Your task to perform on an android device: toggle improve location accuracy Image 0: 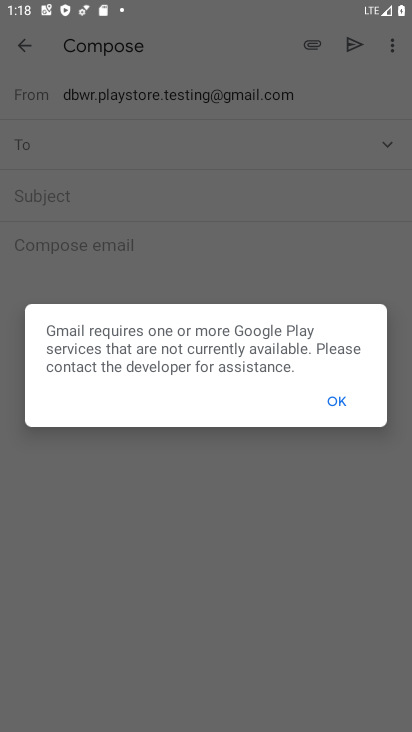
Step 0: click (344, 404)
Your task to perform on an android device: toggle improve location accuracy Image 1: 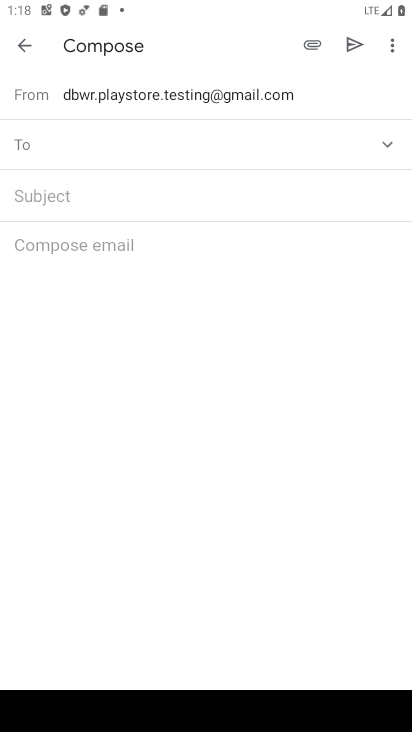
Step 1: press back button
Your task to perform on an android device: toggle improve location accuracy Image 2: 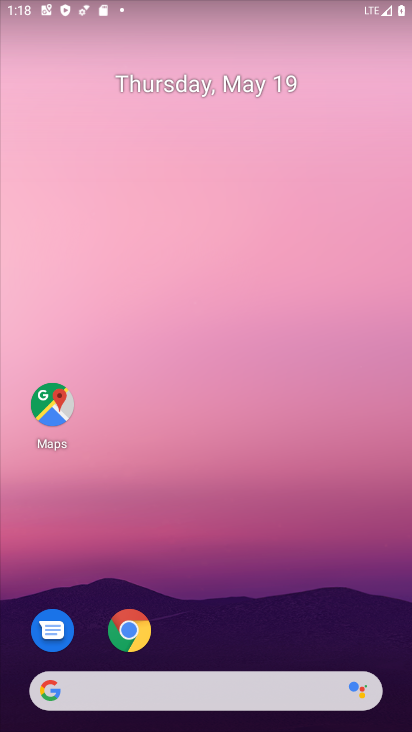
Step 2: drag from (238, 645) to (225, 22)
Your task to perform on an android device: toggle improve location accuracy Image 3: 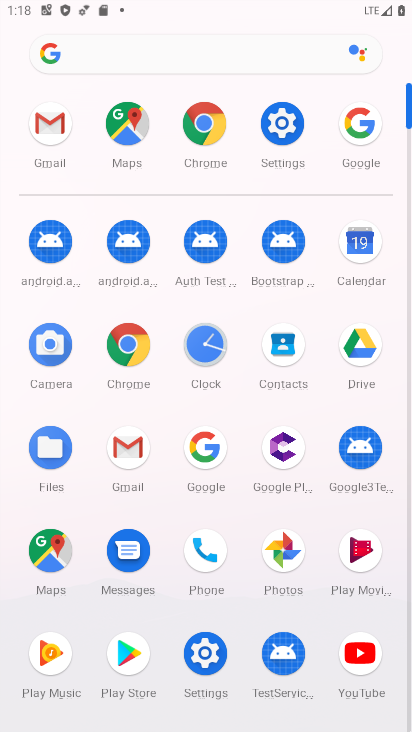
Step 3: click (282, 128)
Your task to perform on an android device: toggle improve location accuracy Image 4: 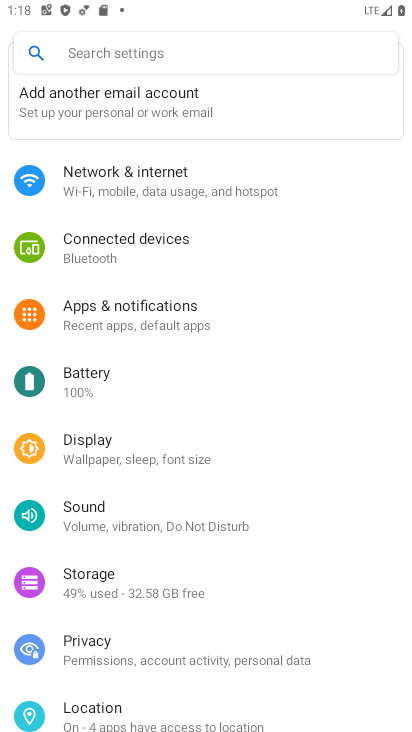
Step 4: click (83, 704)
Your task to perform on an android device: toggle improve location accuracy Image 5: 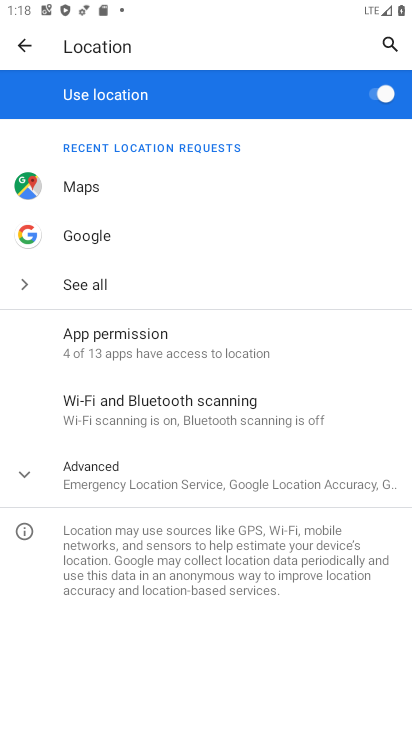
Step 5: click (183, 476)
Your task to perform on an android device: toggle improve location accuracy Image 6: 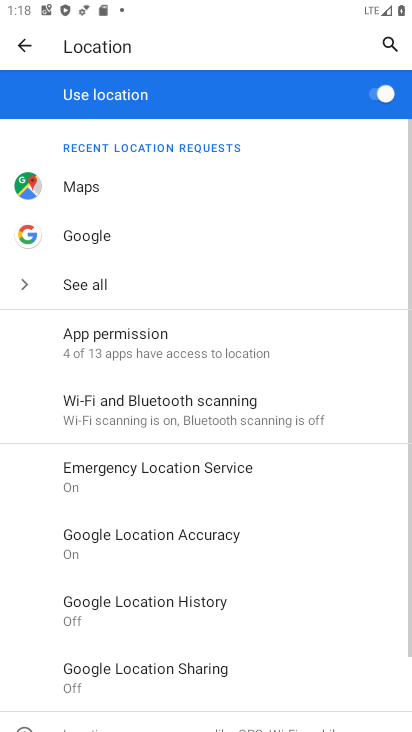
Step 6: click (212, 531)
Your task to perform on an android device: toggle improve location accuracy Image 7: 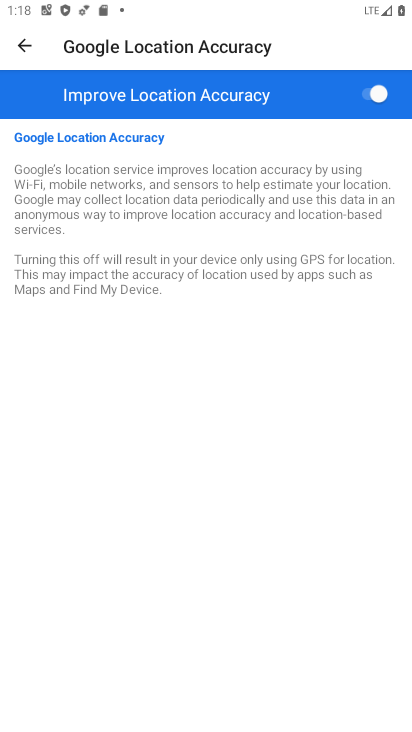
Step 7: click (364, 97)
Your task to perform on an android device: toggle improve location accuracy Image 8: 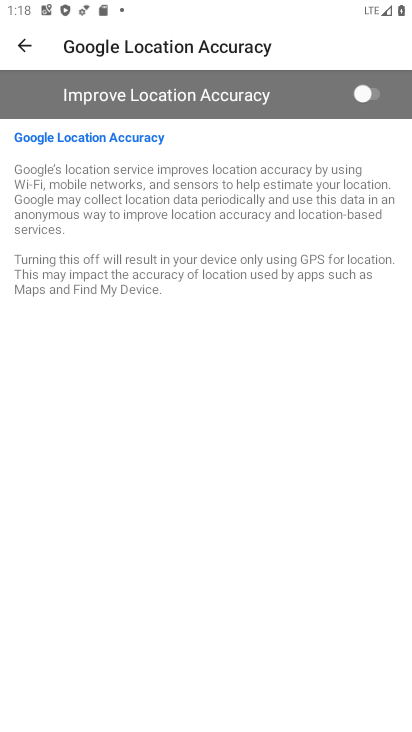
Step 8: task complete